Your task to perform on an android device: open app "Clock" (install if not already installed) Image 0: 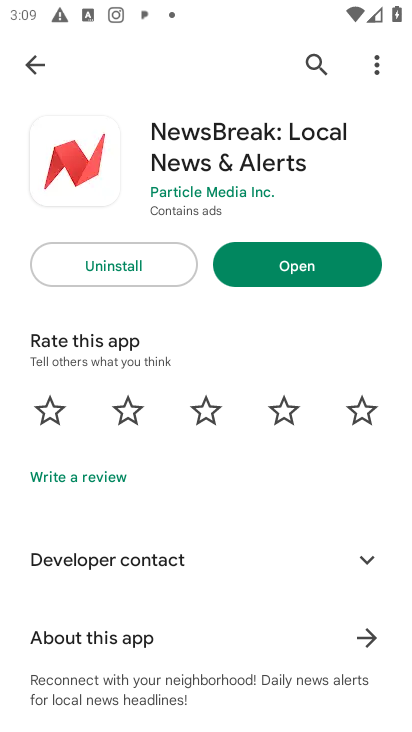
Step 0: press home button
Your task to perform on an android device: open app "Clock" (install if not already installed) Image 1: 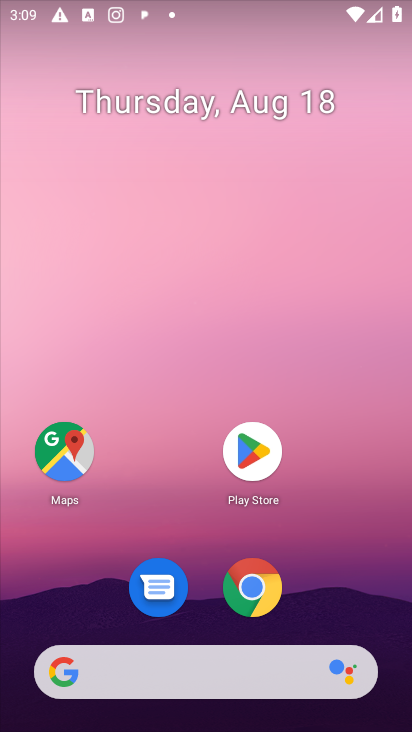
Step 1: click (263, 443)
Your task to perform on an android device: open app "Clock" (install if not already installed) Image 2: 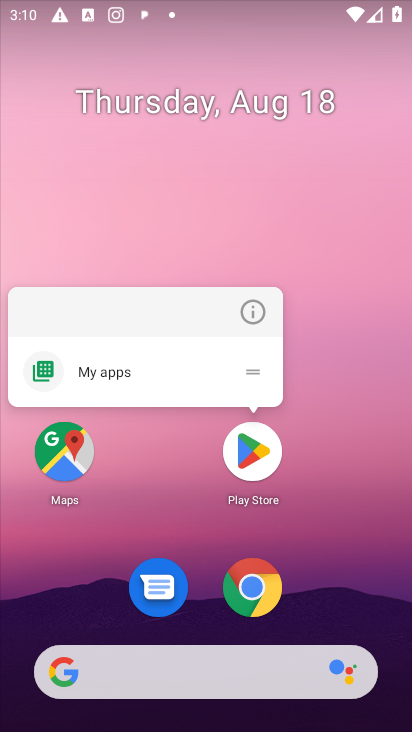
Step 2: click (253, 453)
Your task to perform on an android device: open app "Clock" (install if not already installed) Image 3: 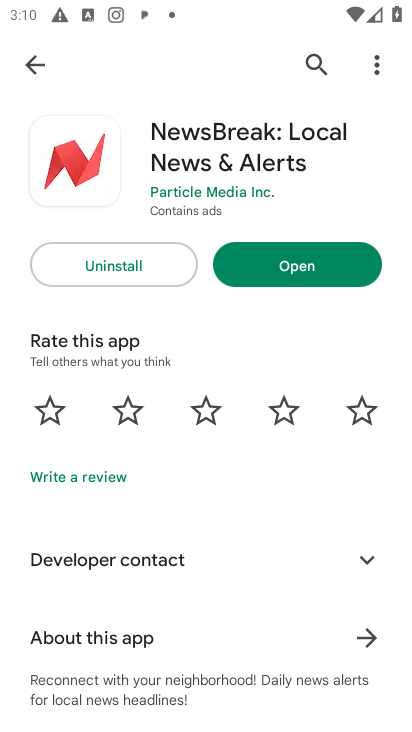
Step 3: click (321, 66)
Your task to perform on an android device: open app "Clock" (install if not already installed) Image 4: 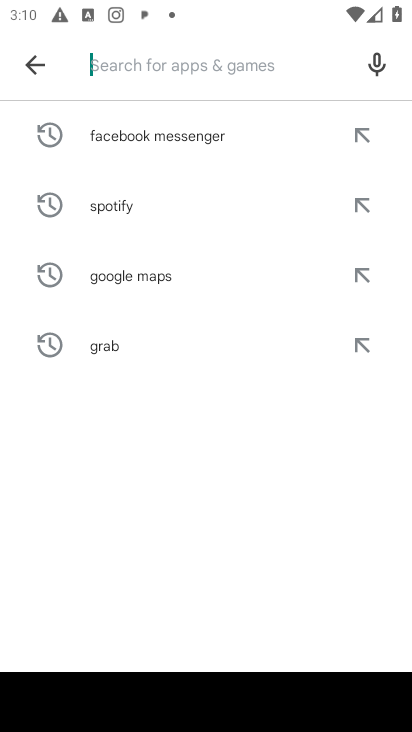
Step 4: type "Clock"
Your task to perform on an android device: open app "Clock" (install if not already installed) Image 5: 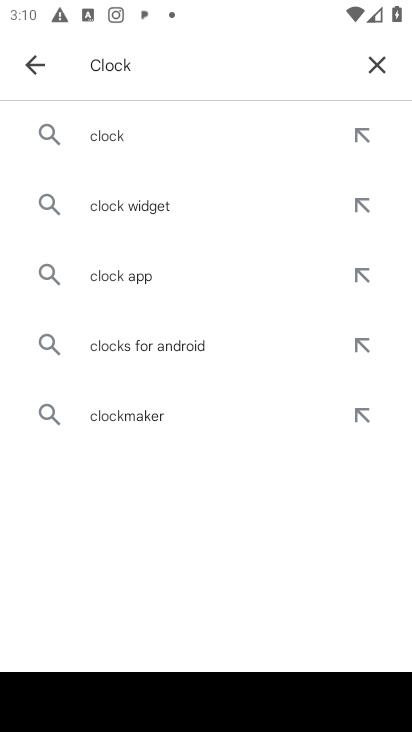
Step 5: click (104, 136)
Your task to perform on an android device: open app "Clock" (install if not already installed) Image 6: 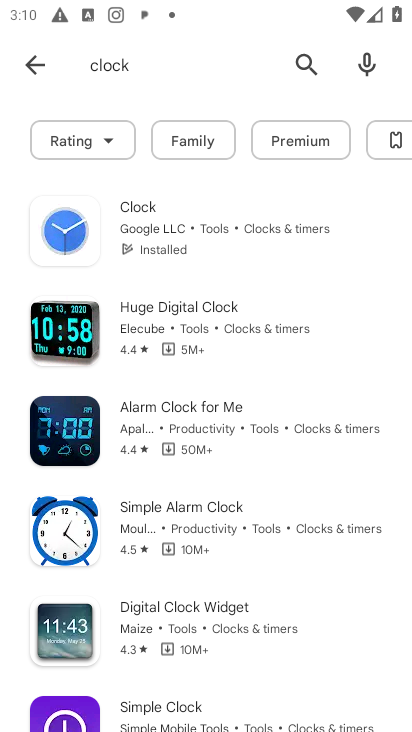
Step 6: click (144, 226)
Your task to perform on an android device: open app "Clock" (install if not already installed) Image 7: 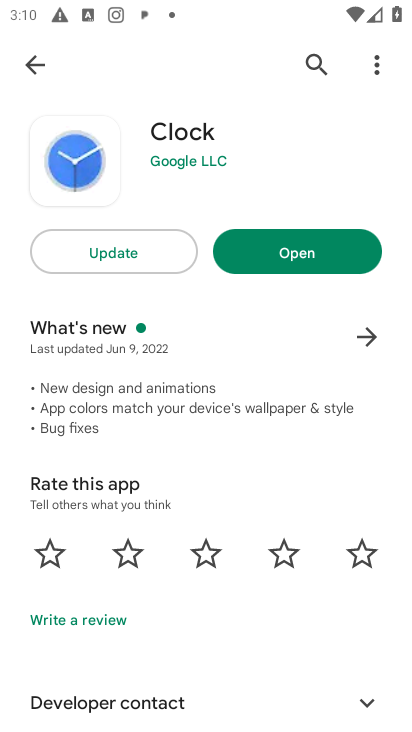
Step 7: click (333, 255)
Your task to perform on an android device: open app "Clock" (install if not already installed) Image 8: 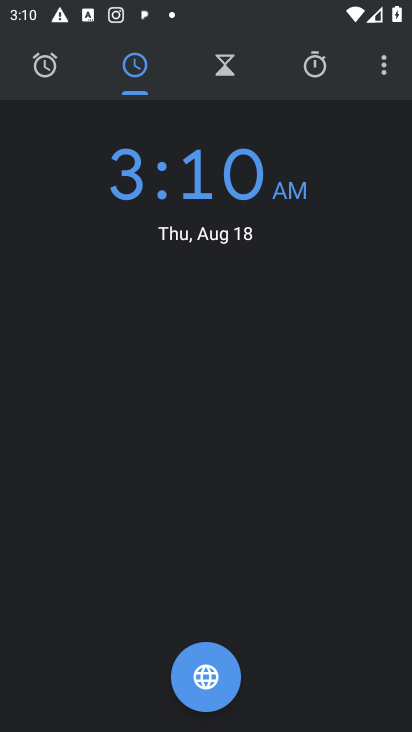
Step 8: task complete